Your task to perform on an android device: What is the news today? Image 0: 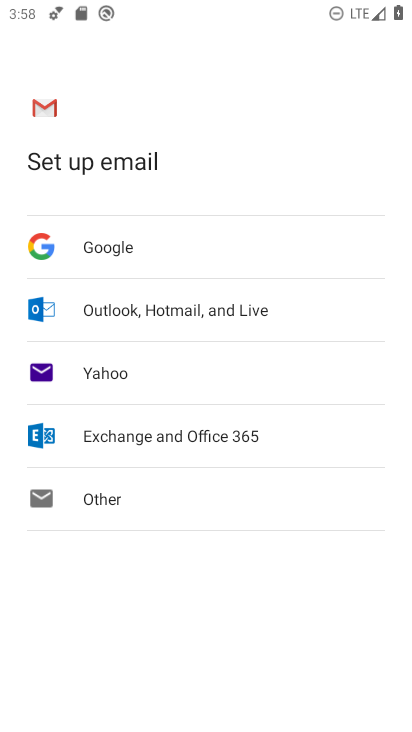
Step 0: press home button
Your task to perform on an android device: What is the news today? Image 1: 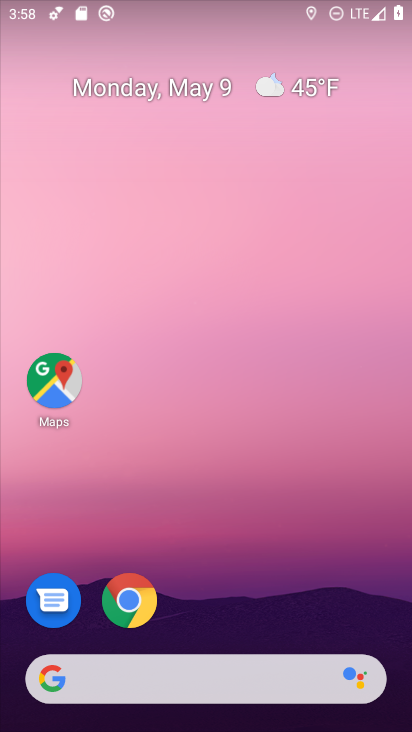
Step 1: click (214, 672)
Your task to perform on an android device: What is the news today? Image 2: 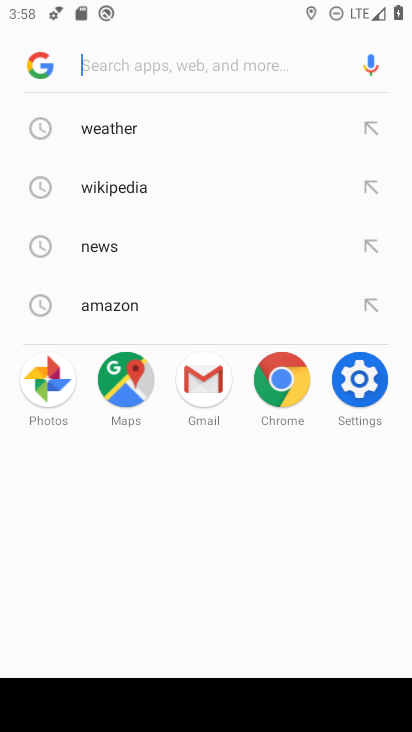
Step 2: type "news today"
Your task to perform on an android device: What is the news today? Image 3: 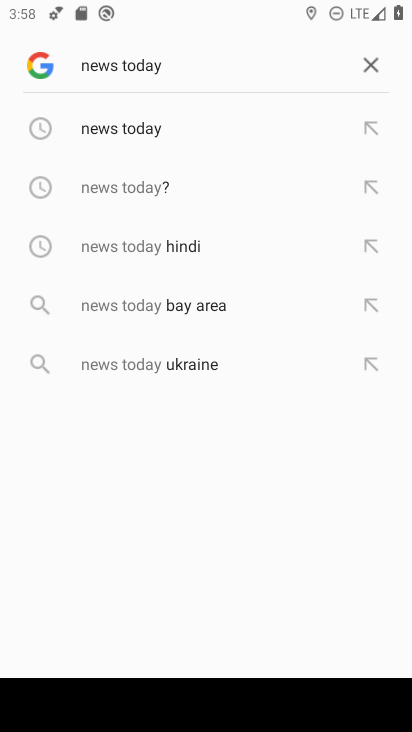
Step 3: click (92, 173)
Your task to perform on an android device: What is the news today? Image 4: 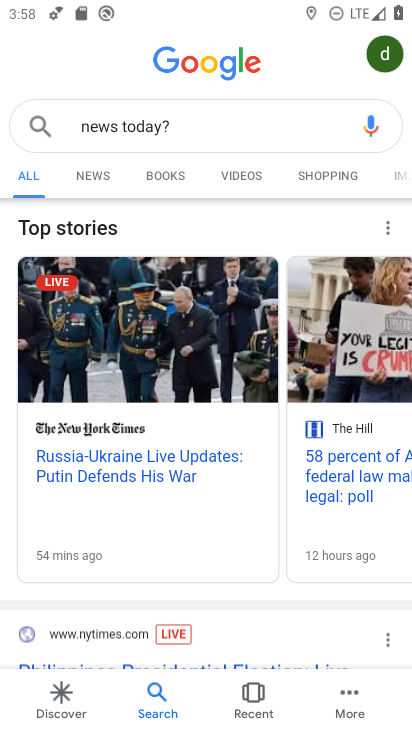
Step 4: task complete